Your task to perform on an android device: Turn off the flashlight Image 0: 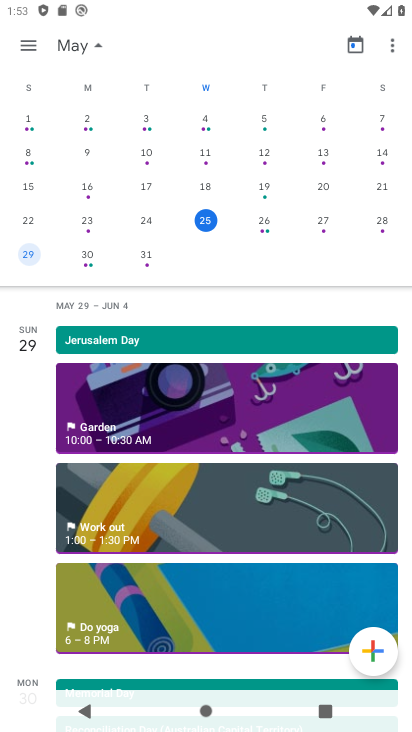
Step 0: press home button
Your task to perform on an android device: Turn off the flashlight Image 1: 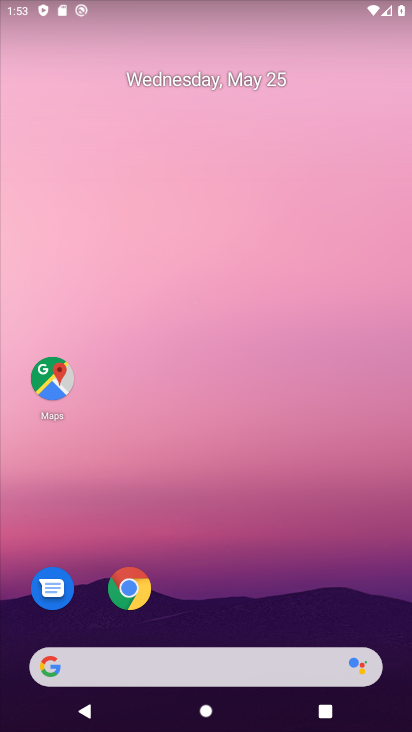
Step 1: drag from (197, 507) to (230, 199)
Your task to perform on an android device: Turn off the flashlight Image 2: 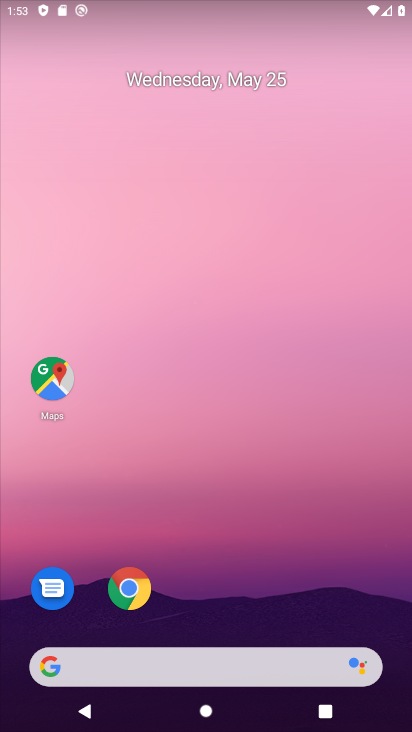
Step 2: drag from (176, 628) to (210, 139)
Your task to perform on an android device: Turn off the flashlight Image 3: 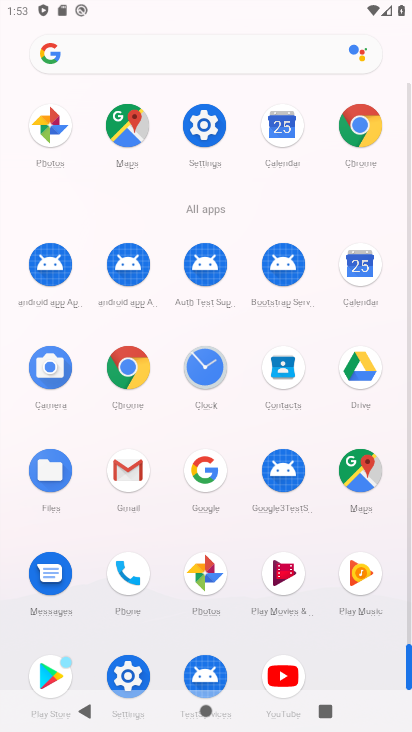
Step 3: click (206, 125)
Your task to perform on an android device: Turn off the flashlight Image 4: 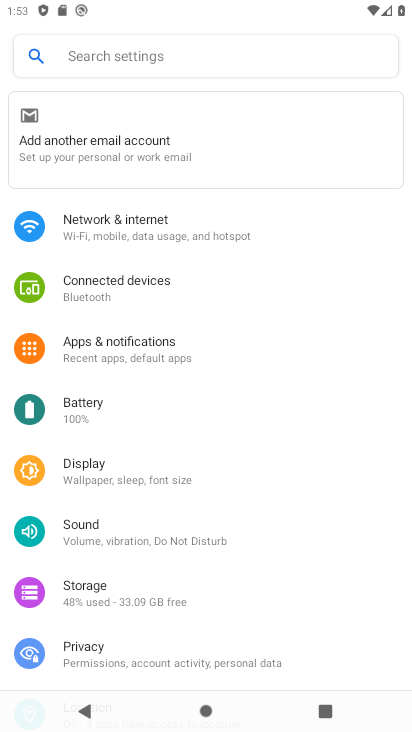
Step 4: click (122, 473)
Your task to perform on an android device: Turn off the flashlight Image 5: 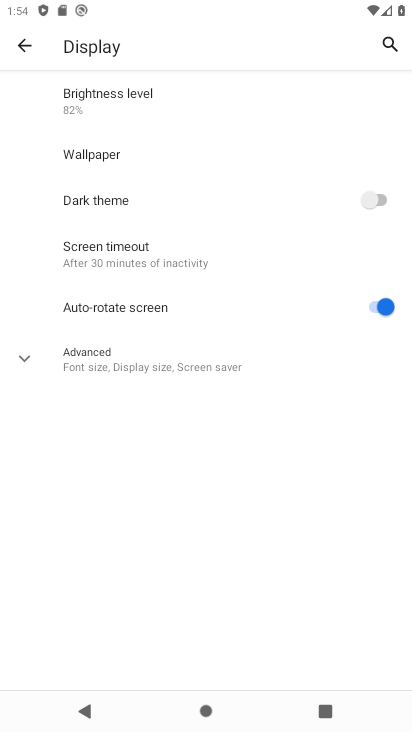
Step 5: task complete